Your task to perform on an android device: open the mobile data screen to see how much data has been used Image 0: 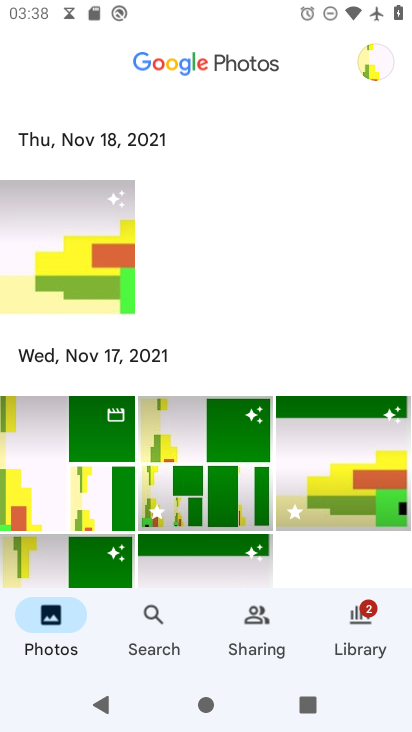
Step 0: press home button
Your task to perform on an android device: open the mobile data screen to see how much data has been used Image 1: 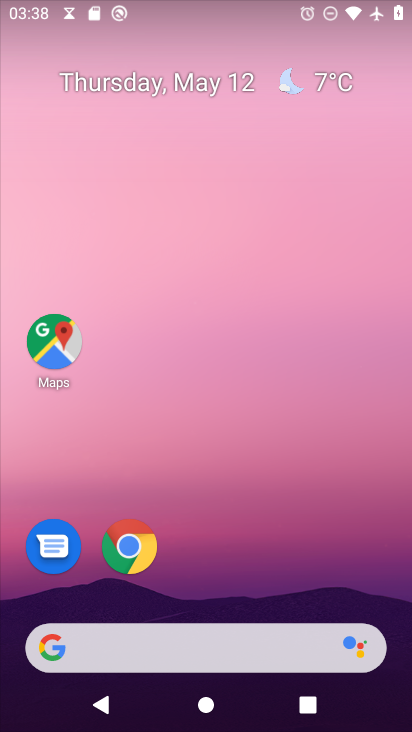
Step 1: drag from (150, 647) to (274, 217)
Your task to perform on an android device: open the mobile data screen to see how much data has been used Image 2: 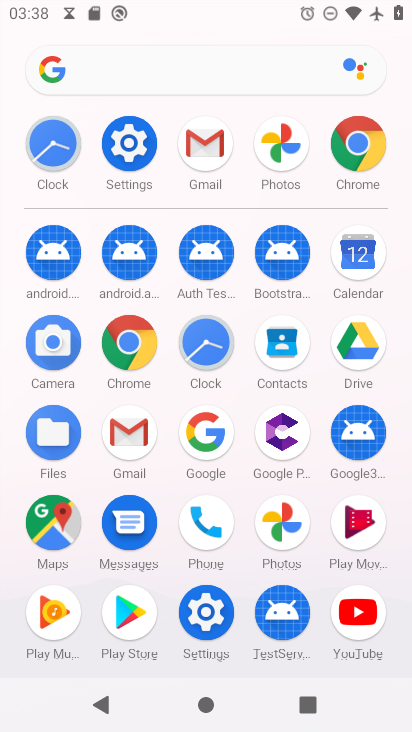
Step 2: click (129, 156)
Your task to perform on an android device: open the mobile data screen to see how much data has been used Image 3: 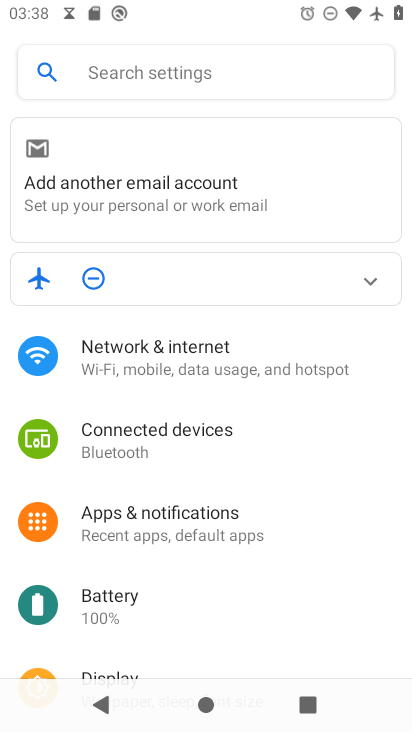
Step 3: click (183, 365)
Your task to perform on an android device: open the mobile data screen to see how much data has been used Image 4: 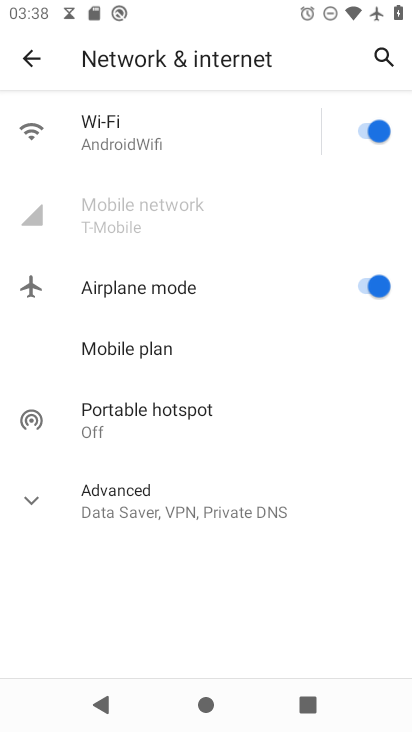
Step 4: task complete